Your task to perform on an android device: visit the assistant section in the google photos Image 0: 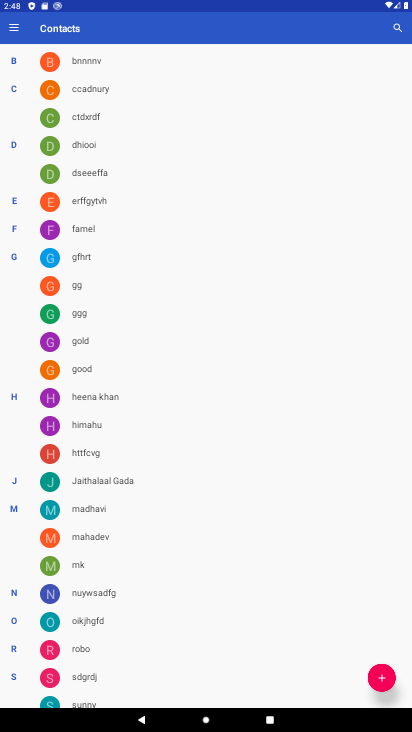
Step 0: press home button
Your task to perform on an android device: visit the assistant section in the google photos Image 1: 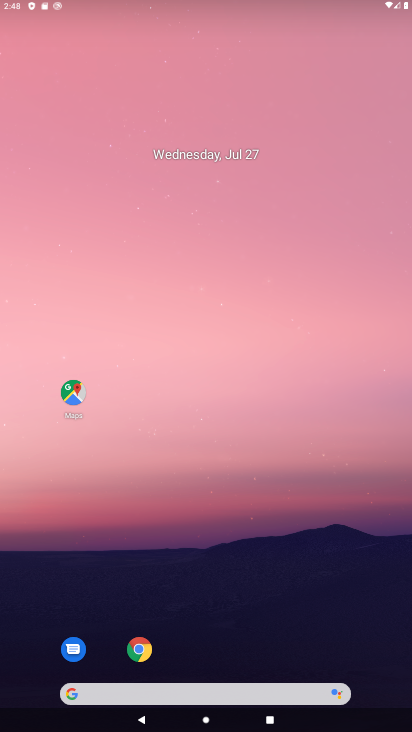
Step 1: drag from (259, 584) to (253, 131)
Your task to perform on an android device: visit the assistant section in the google photos Image 2: 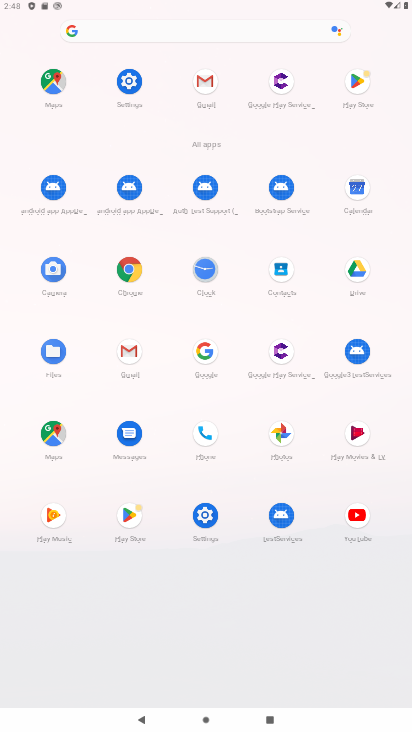
Step 2: click (286, 432)
Your task to perform on an android device: visit the assistant section in the google photos Image 3: 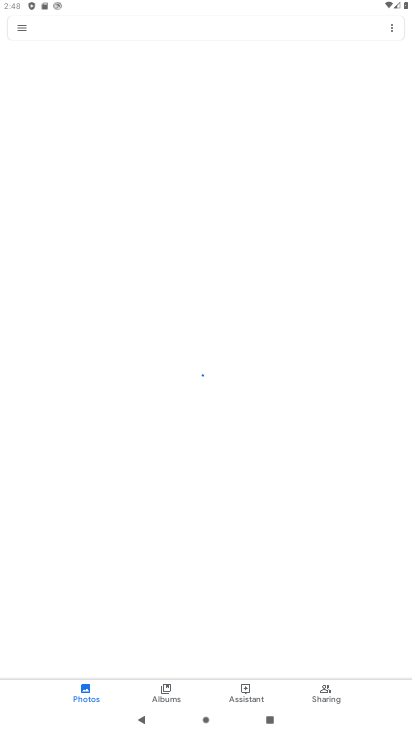
Step 3: click (256, 689)
Your task to perform on an android device: visit the assistant section in the google photos Image 4: 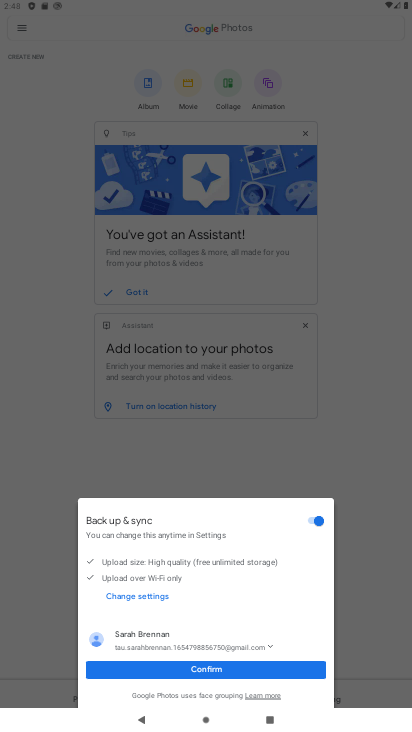
Step 4: task complete